Your task to perform on an android device: Open notification settings Image 0: 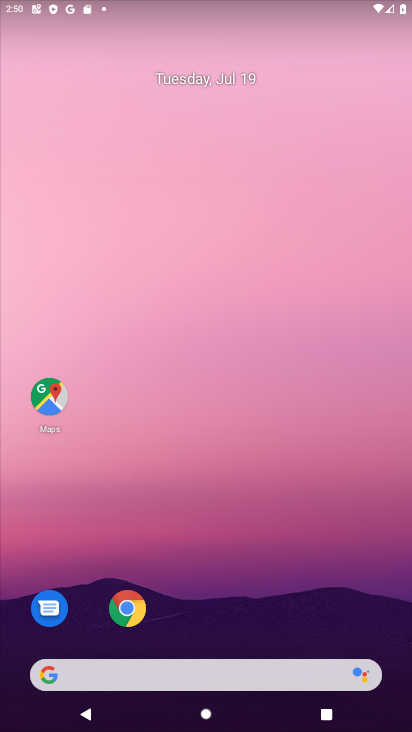
Step 0: drag from (280, 608) to (266, 2)
Your task to perform on an android device: Open notification settings Image 1: 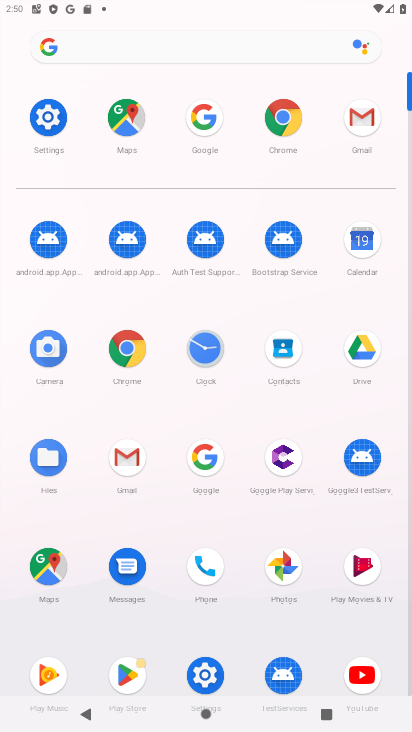
Step 1: click (49, 117)
Your task to perform on an android device: Open notification settings Image 2: 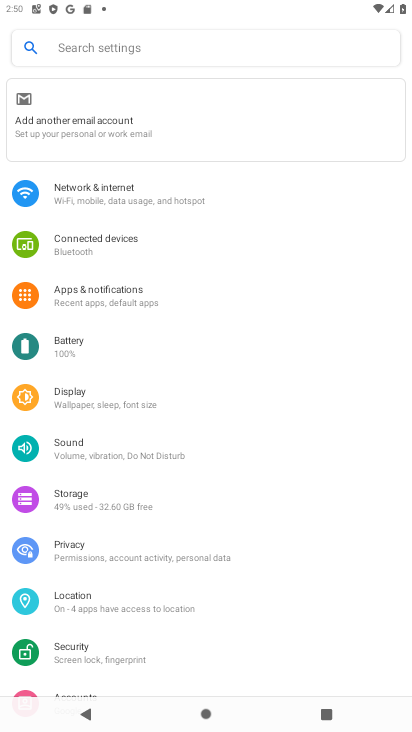
Step 2: click (66, 303)
Your task to perform on an android device: Open notification settings Image 3: 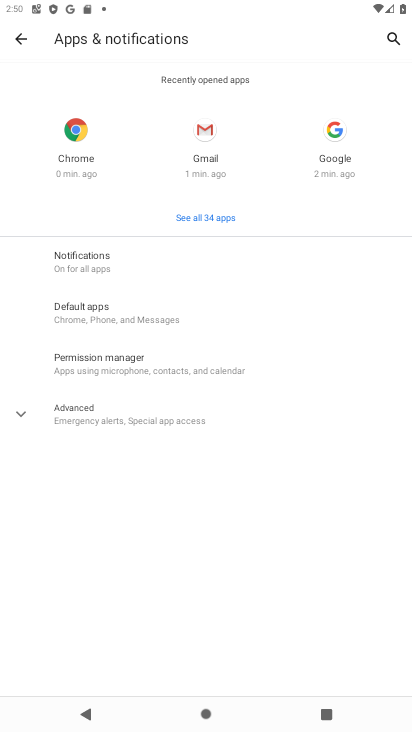
Step 3: click (92, 264)
Your task to perform on an android device: Open notification settings Image 4: 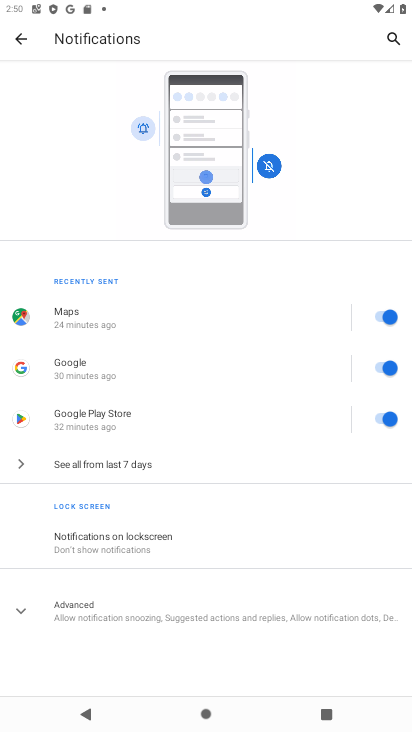
Step 4: task complete